Your task to perform on an android device: Open calendar and show me the fourth week of next month Image 0: 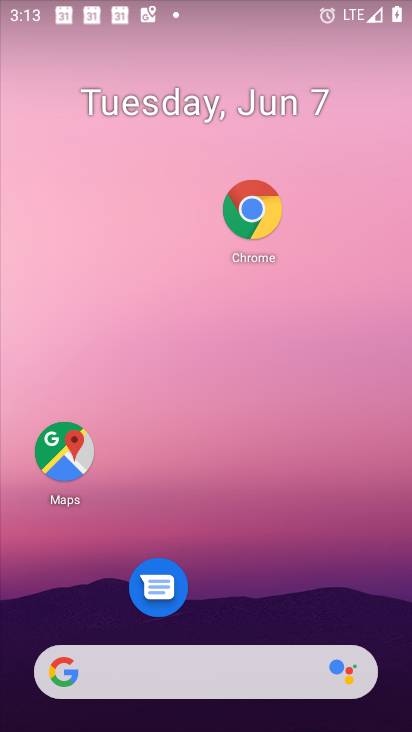
Step 0: drag from (202, 514) to (234, 198)
Your task to perform on an android device: Open calendar and show me the fourth week of next month Image 1: 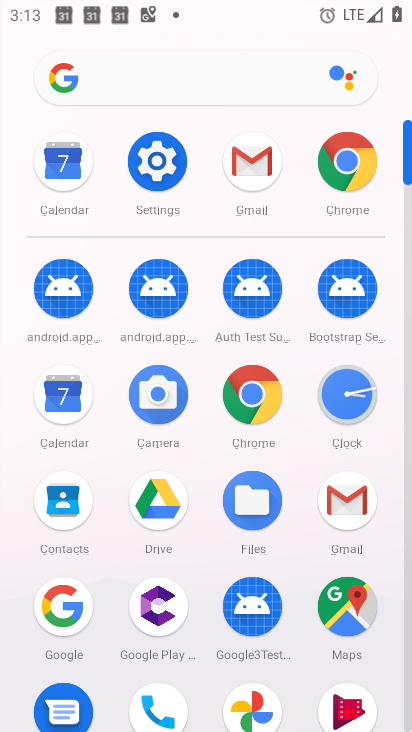
Step 1: click (71, 390)
Your task to perform on an android device: Open calendar and show me the fourth week of next month Image 2: 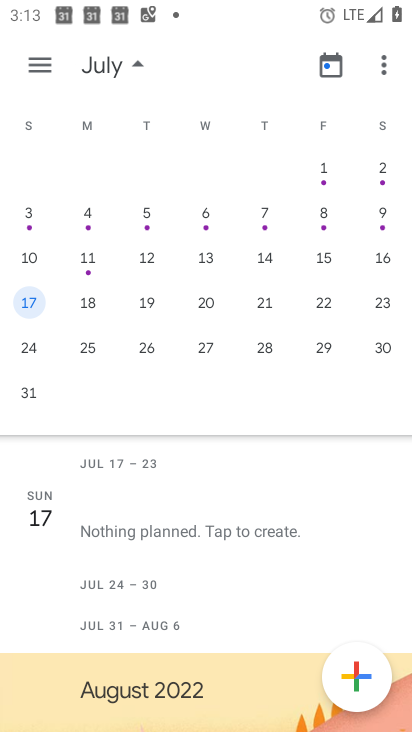
Step 2: task complete